Your task to perform on an android device: Clear the shopping cart on newegg. Search for logitech g pro on newegg, select the first entry, add it to the cart, then select checkout. Image 0: 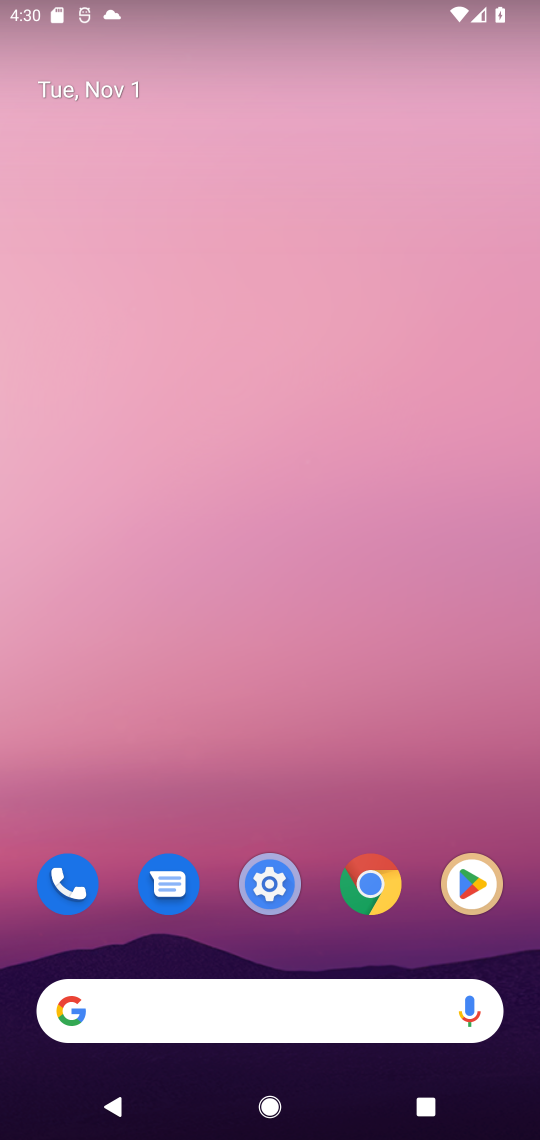
Step 0: press home button
Your task to perform on an android device: Clear the shopping cart on newegg. Search for logitech g pro on newegg, select the first entry, add it to the cart, then select checkout. Image 1: 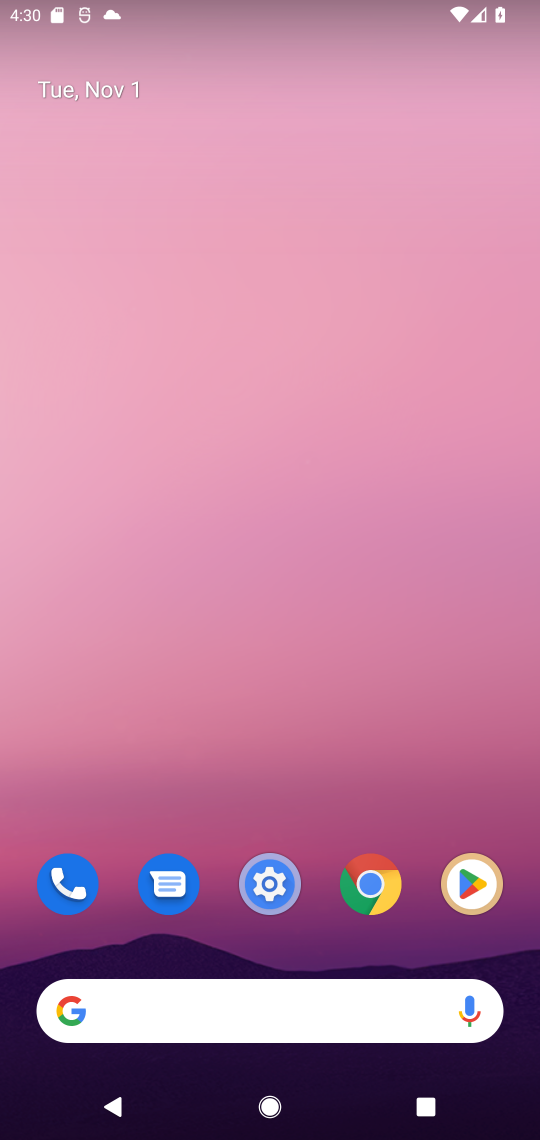
Step 1: click (160, 1018)
Your task to perform on an android device: Clear the shopping cart on newegg. Search for logitech g pro on newegg, select the first entry, add it to the cart, then select checkout. Image 2: 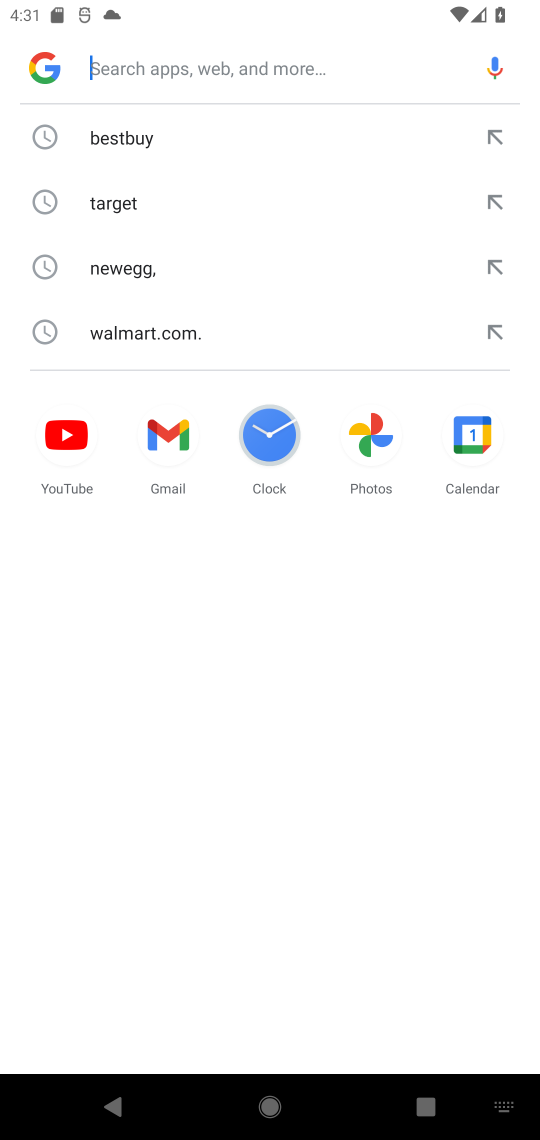
Step 2: type "newegg"
Your task to perform on an android device: Clear the shopping cart on newegg. Search for logitech g pro on newegg, select the first entry, add it to the cart, then select checkout. Image 3: 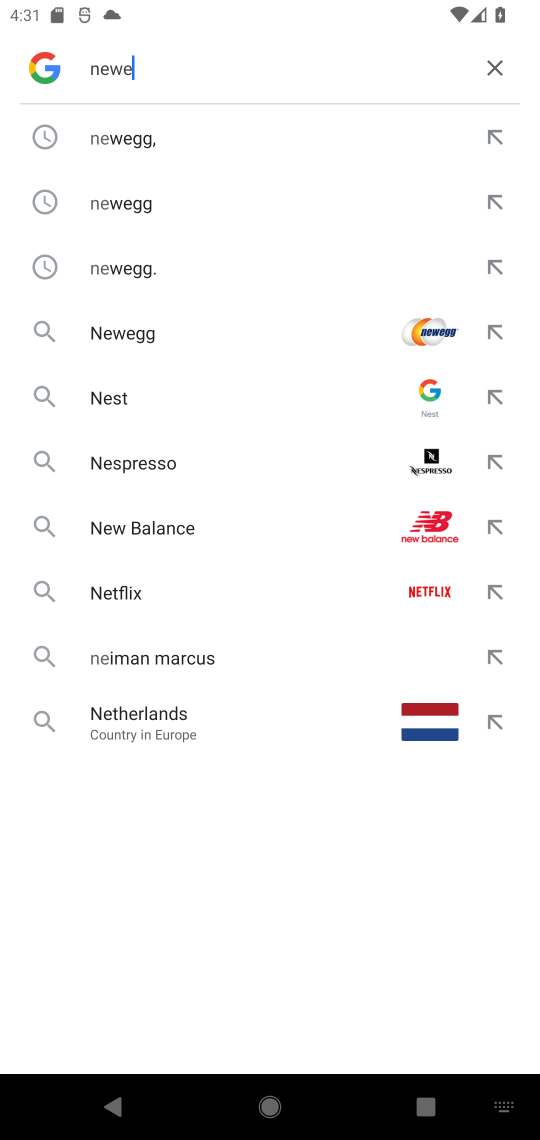
Step 3: press enter
Your task to perform on an android device: Clear the shopping cart on newegg. Search for logitech g pro on newegg, select the first entry, add it to the cart, then select checkout. Image 4: 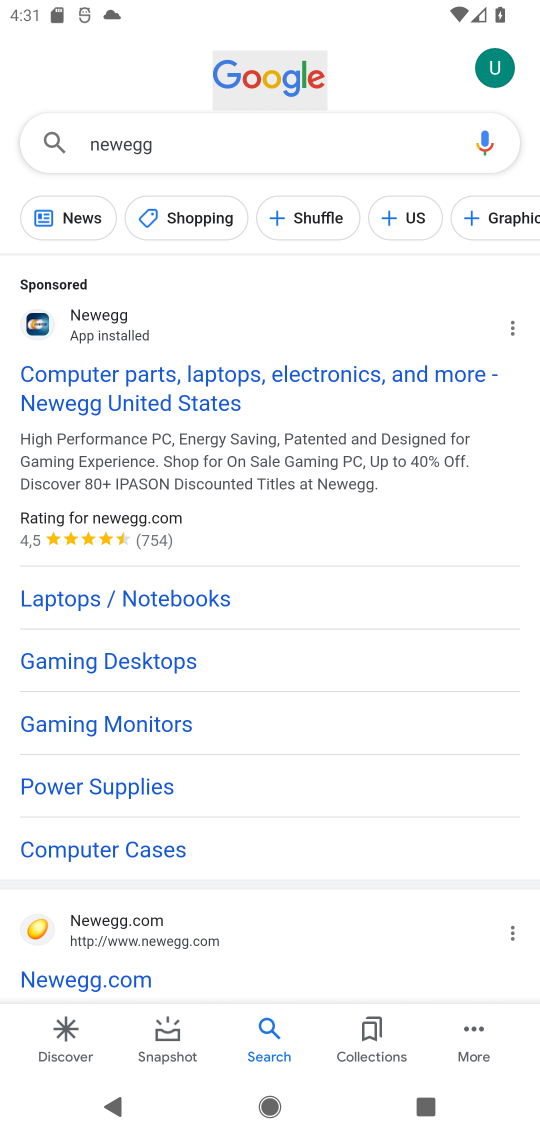
Step 4: drag from (318, 813) to (338, 569)
Your task to perform on an android device: Clear the shopping cart on newegg. Search for logitech g pro on newegg, select the first entry, add it to the cart, then select checkout. Image 5: 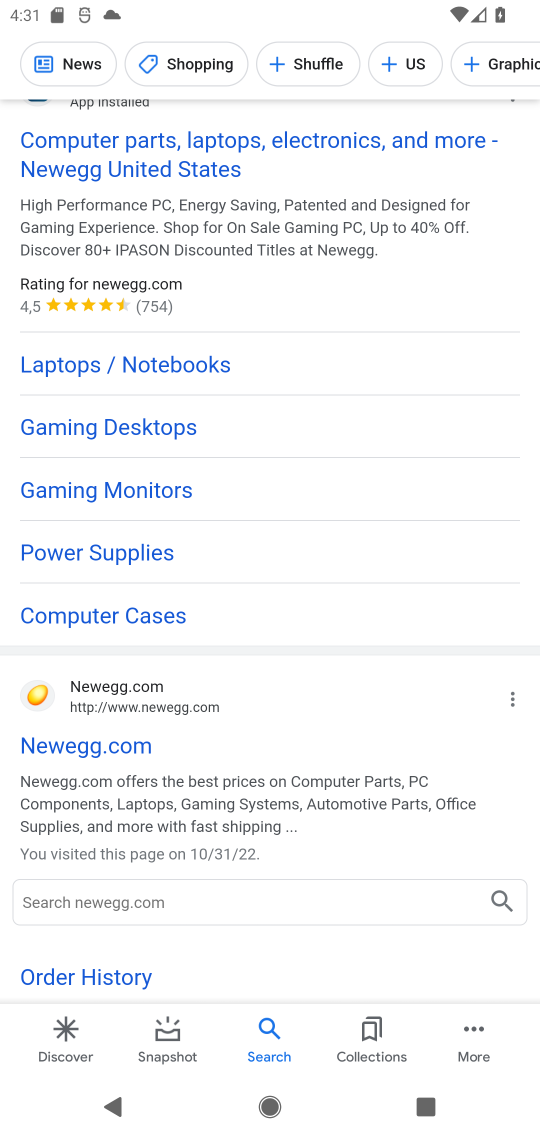
Step 5: click (108, 739)
Your task to perform on an android device: Clear the shopping cart on newegg. Search for logitech g pro on newegg, select the first entry, add it to the cart, then select checkout. Image 6: 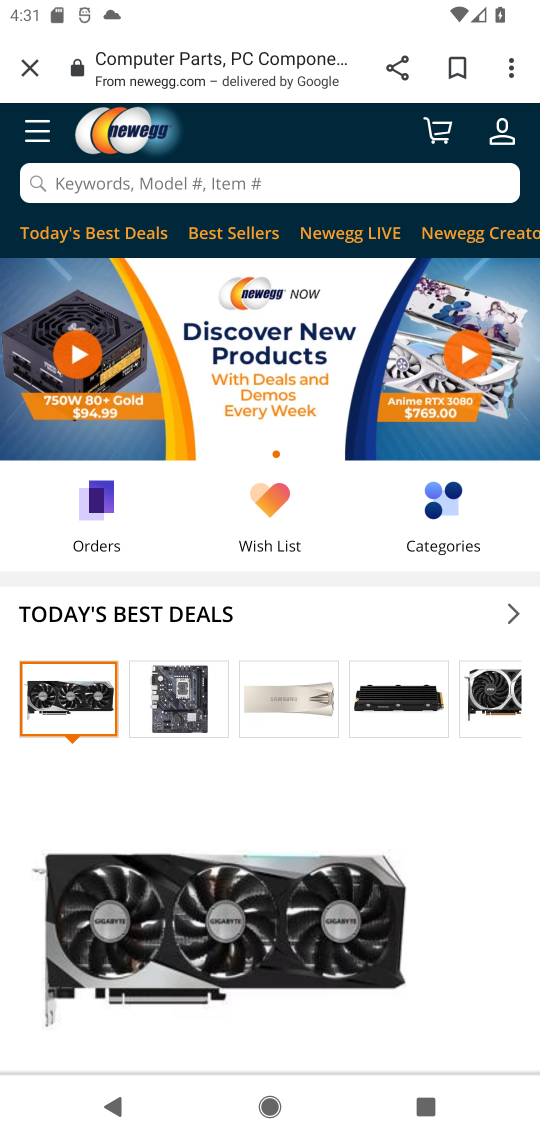
Step 6: click (443, 140)
Your task to perform on an android device: Clear the shopping cart on newegg. Search for logitech g pro on newegg, select the first entry, add it to the cart, then select checkout. Image 7: 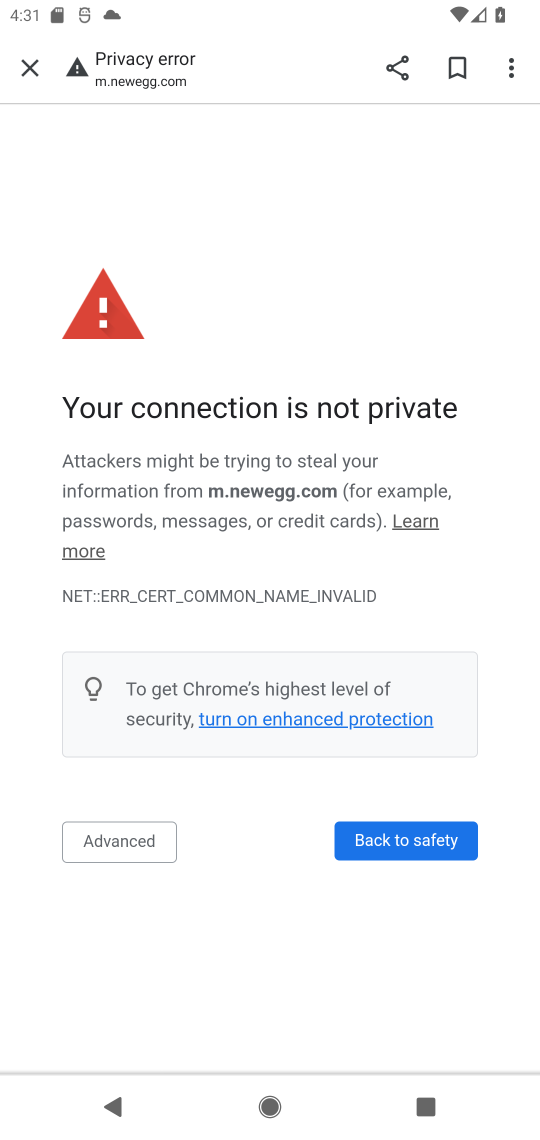
Step 7: task complete